Your task to perform on an android device: turn off sleep mode Image 0: 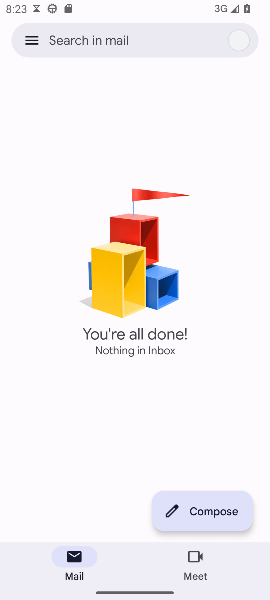
Step 0: press home button
Your task to perform on an android device: turn off sleep mode Image 1: 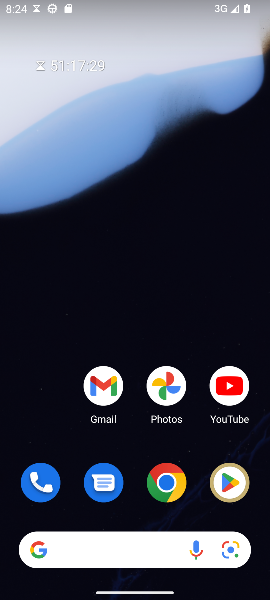
Step 1: drag from (149, 478) to (185, 60)
Your task to perform on an android device: turn off sleep mode Image 2: 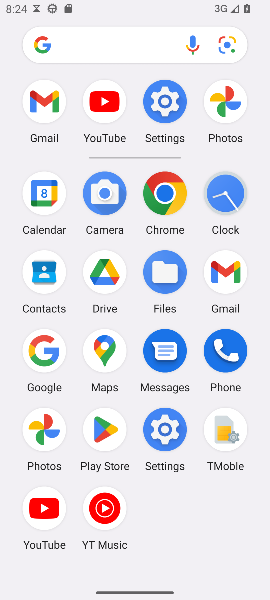
Step 2: click (174, 104)
Your task to perform on an android device: turn off sleep mode Image 3: 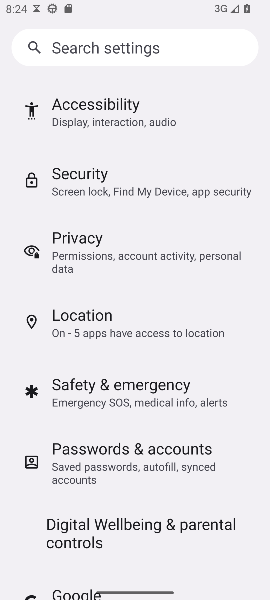
Step 3: drag from (115, 440) to (159, 156)
Your task to perform on an android device: turn off sleep mode Image 4: 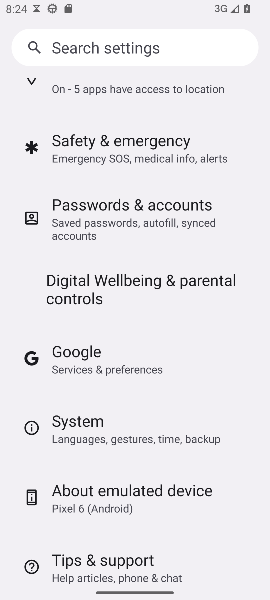
Step 4: drag from (161, 168) to (167, 482)
Your task to perform on an android device: turn off sleep mode Image 5: 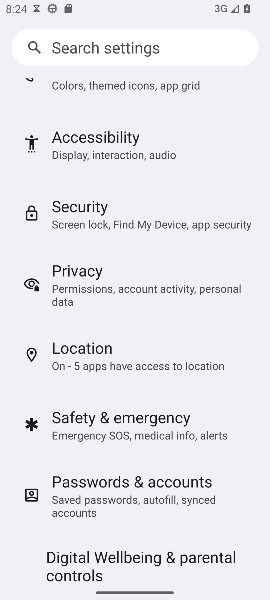
Step 5: drag from (131, 171) to (133, 441)
Your task to perform on an android device: turn off sleep mode Image 6: 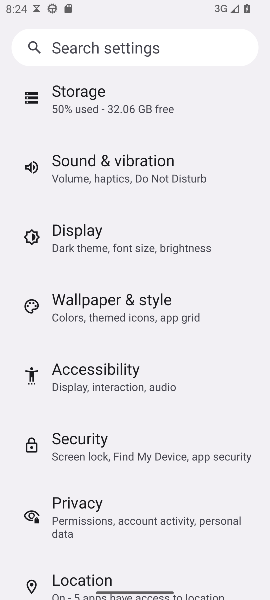
Step 6: press home button
Your task to perform on an android device: turn off sleep mode Image 7: 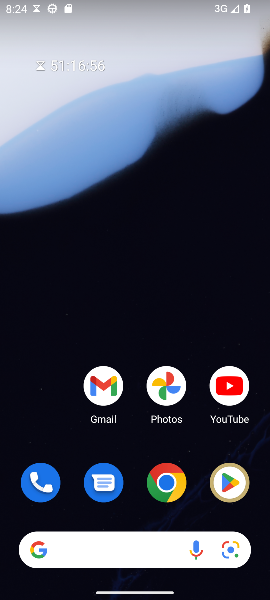
Step 7: drag from (130, 500) to (168, 136)
Your task to perform on an android device: turn off sleep mode Image 8: 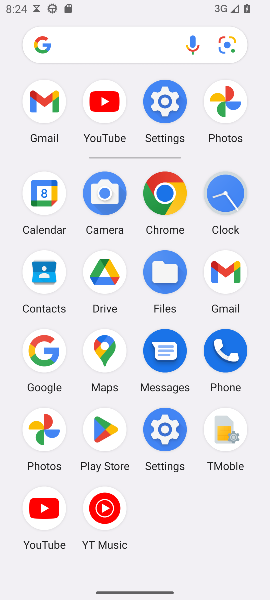
Step 8: click (167, 110)
Your task to perform on an android device: turn off sleep mode Image 9: 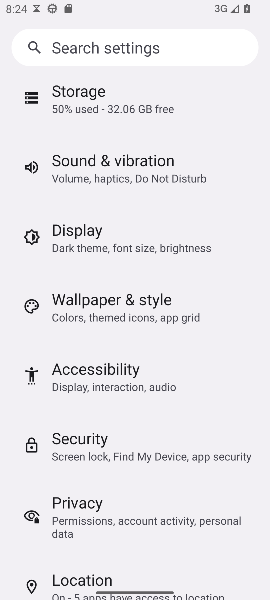
Step 9: drag from (158, 125) to (123, 486)
Your task to perform on an android device: turn off sleep mode Image 10: 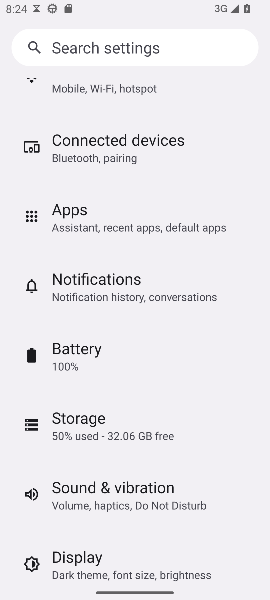
Step 10: drag from (149, 233) to (123, 494)
Your task to perform on an android device: turn off sleep mode Image 11: 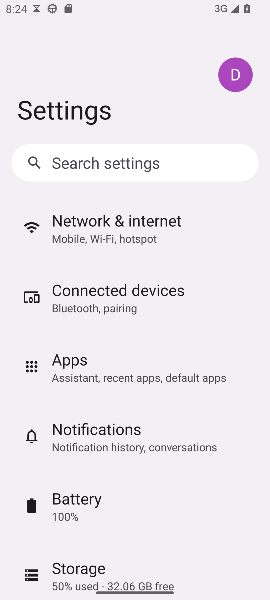
Step 11: drag from (147, 487) to (186, 182)
Your task to perform on an android device: turn off sleep mode Image 12: 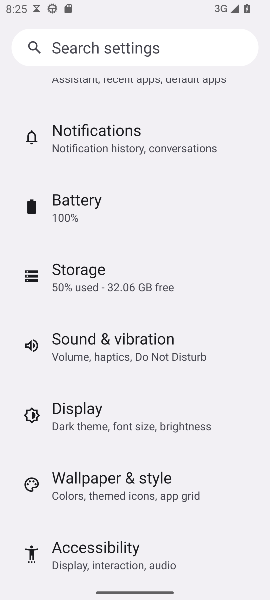
Step 12: drag from (121, 483) to (149, 285)
Your task to perform on an android device: turn off sleep mode Image 13: 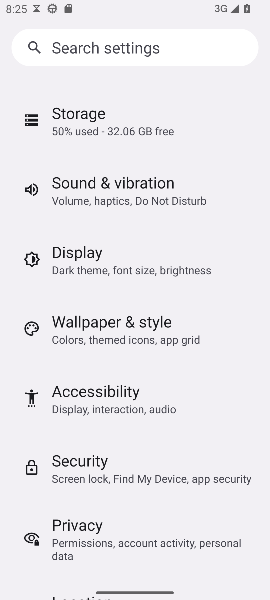
Step 13: drag from (138, 489) to (149, 246)
Your task to perform on an android device: turn off sleep mode Image 14: 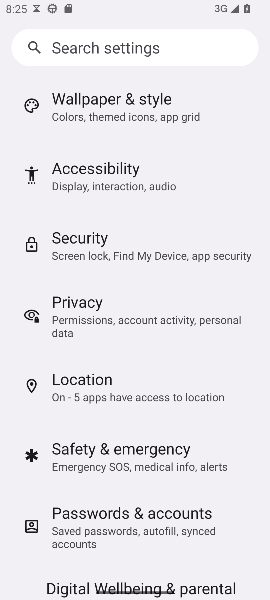
Step 14: drag from (133, 513) to (166, 196)
Your task to perform on an android device: turn off sleep mode Image 15: 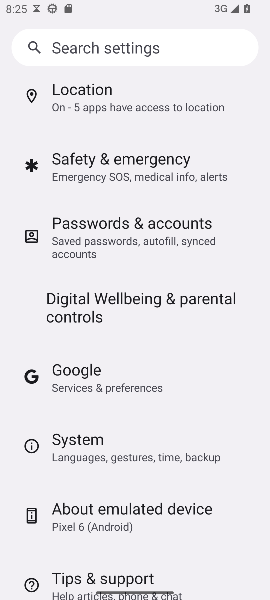
Step 15: drag from (135, 488) to (165, 195)
Your task to perform on an android device: turn off sleep mode Image 16: 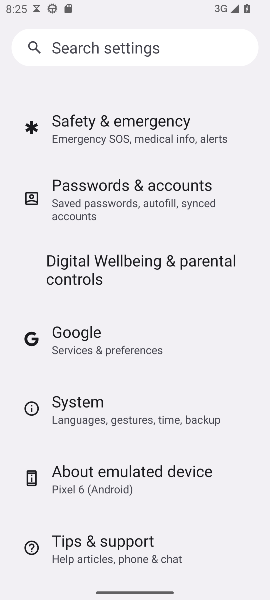
Step 16: drag from (137, 483) to (130, 589)
Your task to perform on an android device: turn off sleep mode Image 17: 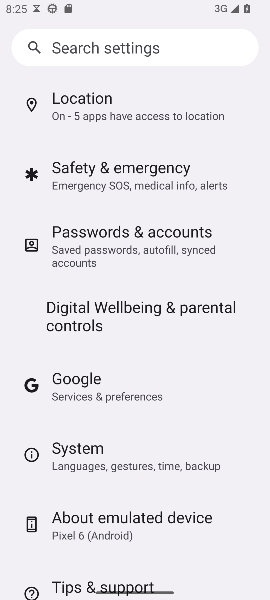
Step 17: drag from (171, 245) to (182, 487)
Your task to perform on an android device: turn off sleep mode Image 18: 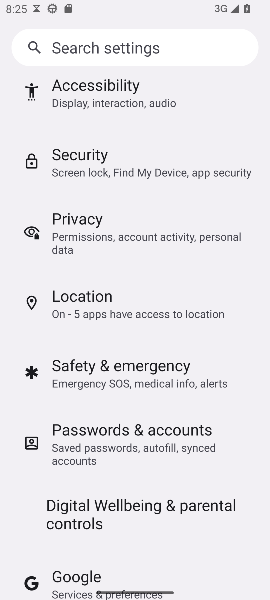
Step 18: drag from (157, 354) to (177, 490)
Your task to perform on an android device: turn off sleep mode Image 19: 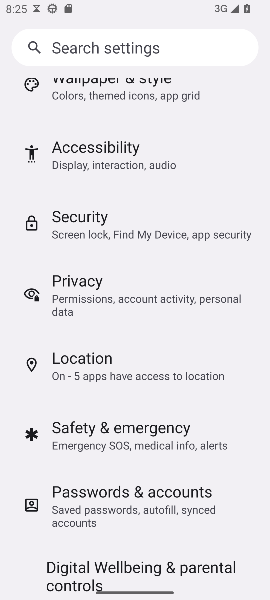
Step 19: drag from (143, 157) to (148, 495)
Your task to perform on an android device: turn off sleep mode Image 20: 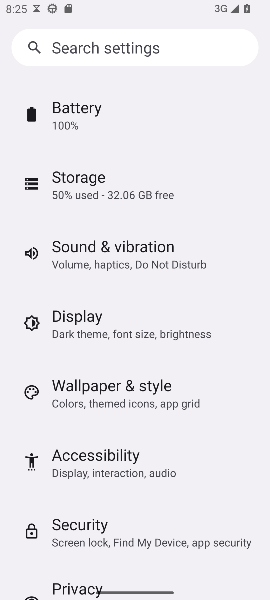
Step 20: drag from (132, 183) to (131, 468)
Your task to perform on an android device: turn off sleep mode Image 21: 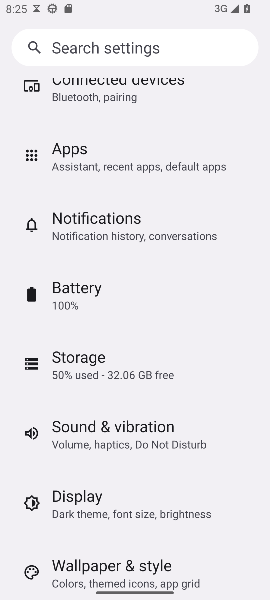
Step 21: drag from (124, 108) to (129, 440)
Your task to perform on an android device: turn off sleep mode Image 22: 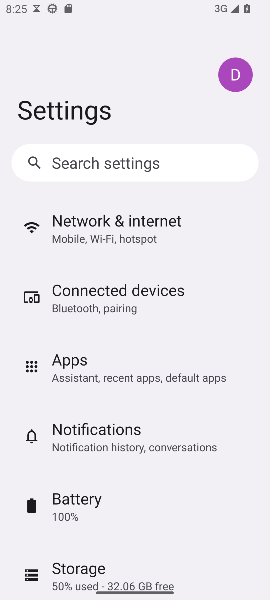
Step 22: drag from (122, 462) to (173, 221)
Your task to perform on an android device: turn off sleep mode Image 23: 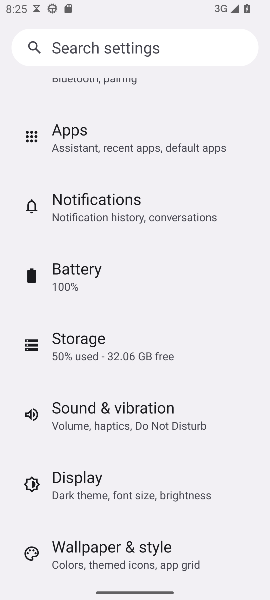
Step 23: drag from (142, 469) to (150, 356)
Your task to perform on an android device: turn off sleep mode Image 24: 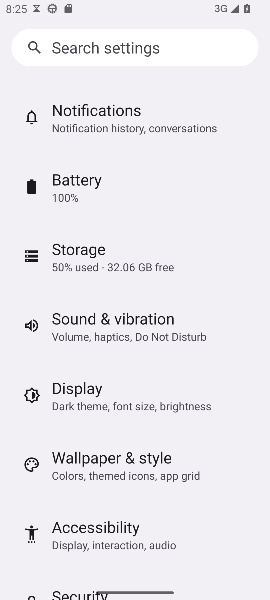
Step 24: click (103, 405)
Your task to perform on an android device: turn off sleep mode Image 25: 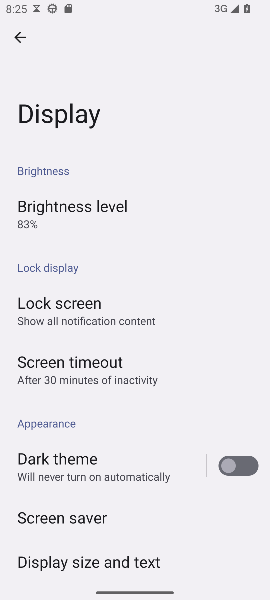
Step 25: click (77, 376)
Your task to perform on an android device: turn off sleep mode Image 26: 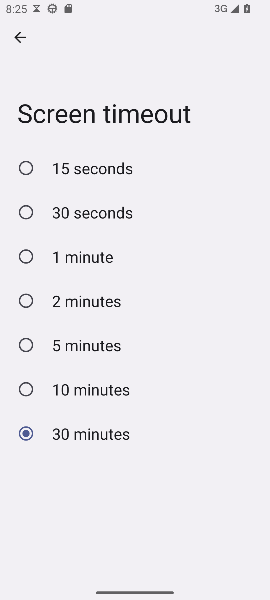
Step 26: task complete